Your task to perform on an android device: Go to Maps Image 0: 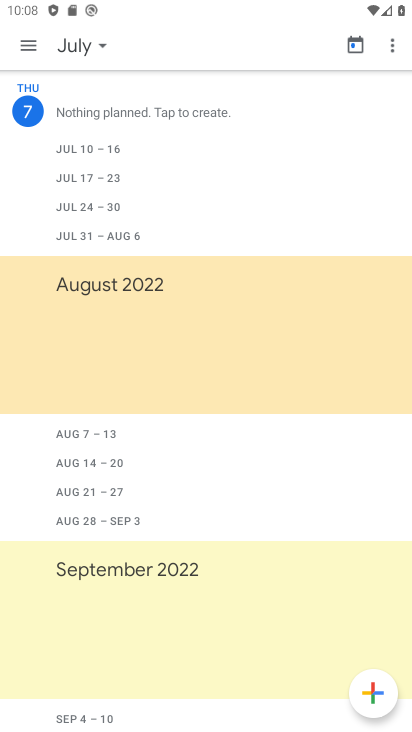
Step 0: task complete